Your task to perform on an android device: allow cookies in the chrome app Image 0: 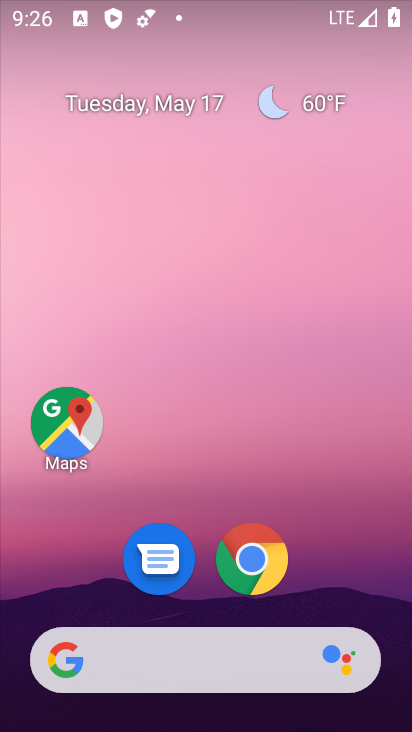
Step 0: click (247, 575)
Your task to perform on an android device: allow cookies in the chrome app Image 1: 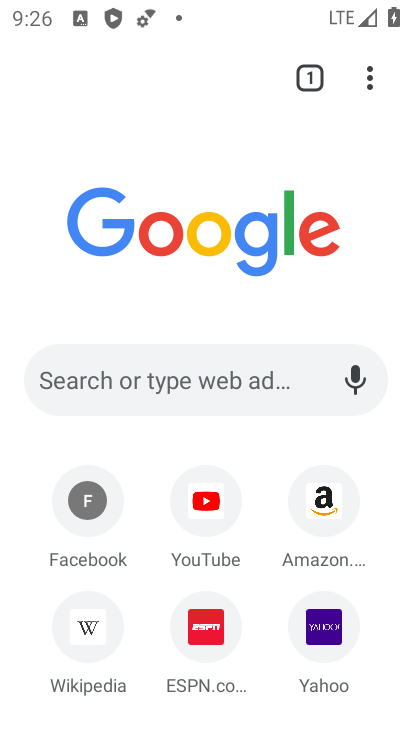
Step 1: drag from (365, 90) to (80, 655)
Your task to perform on an android device: allow cookies in the chrome app Image 2: 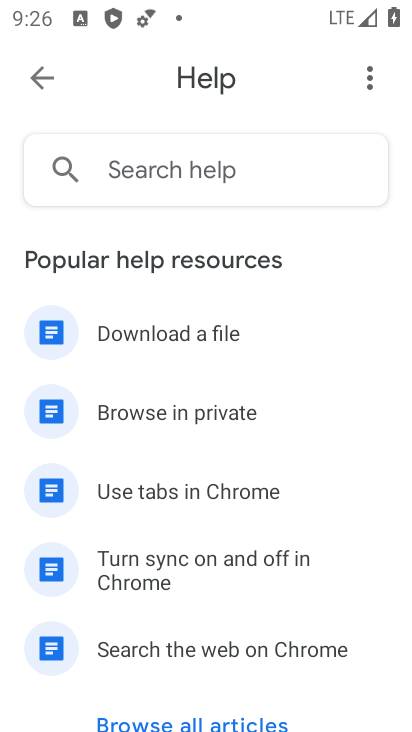
Step 2: press back button
Your task to perform on an android device: allow cookies in the chrome app Image 3: 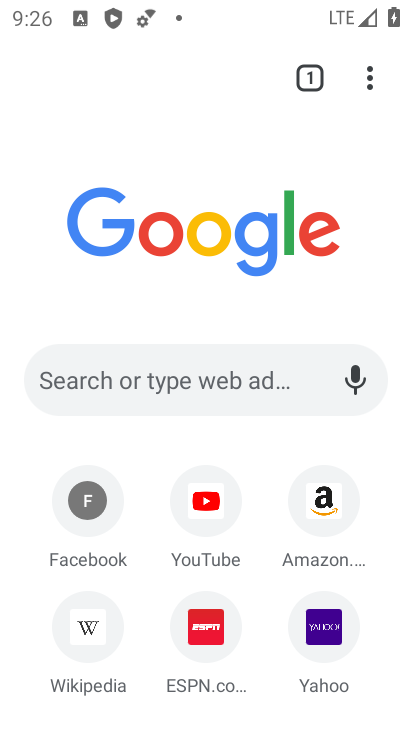
Step 3: drag from (365, 78) to (95, 636)
Your task to perform on an android device: allow cookies in the chrome app Image 4: 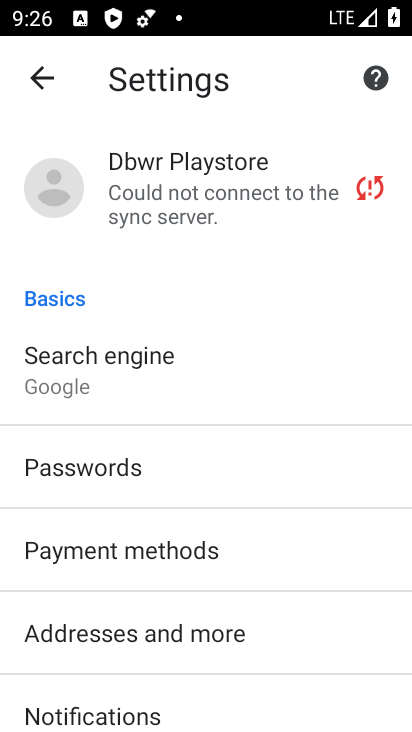
Step 4: drag from (213, 612) to (222, 473)
Your task to perform on an android device: allow cookies in the chrome app Image 5: 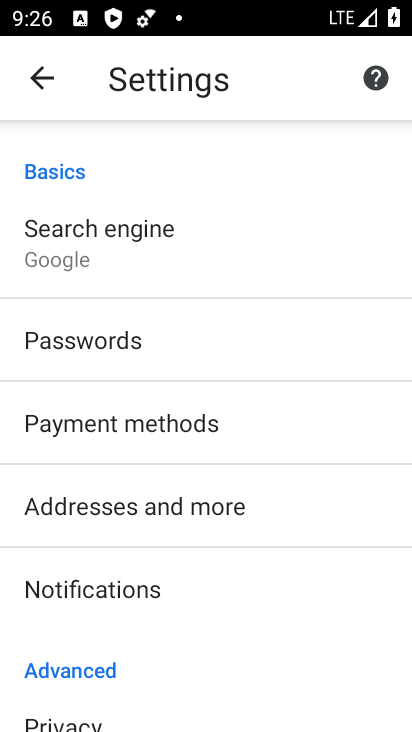
Step 5: drag from (119, 644) to (137, 459)
Your task to perform on an android device: allow cookies in the chrome app Image 6: 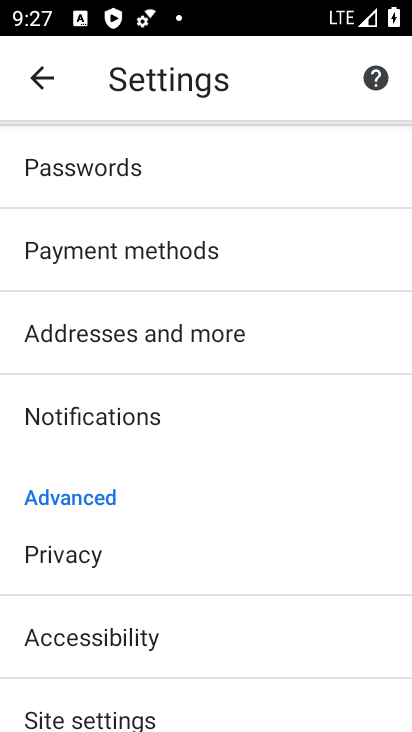
Step 6: drag from (174, 607) to (209, 413)
Your task to perform on an android device: allow cookies in the chrome app Image 7: 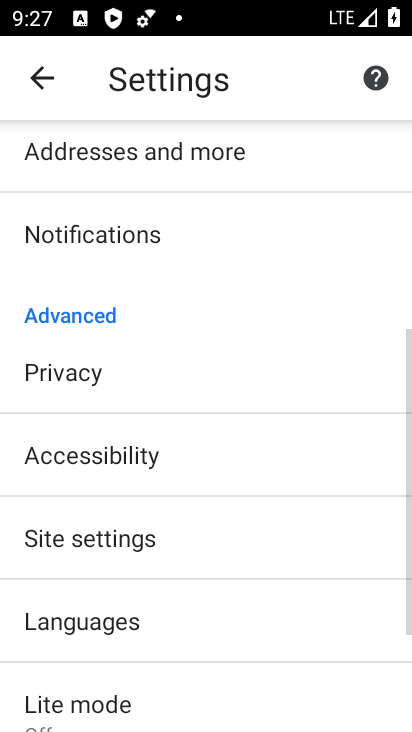
Step 7: click (154, 515)
Your task to perform on an android device: allow cookies in the chrome app Image 8: 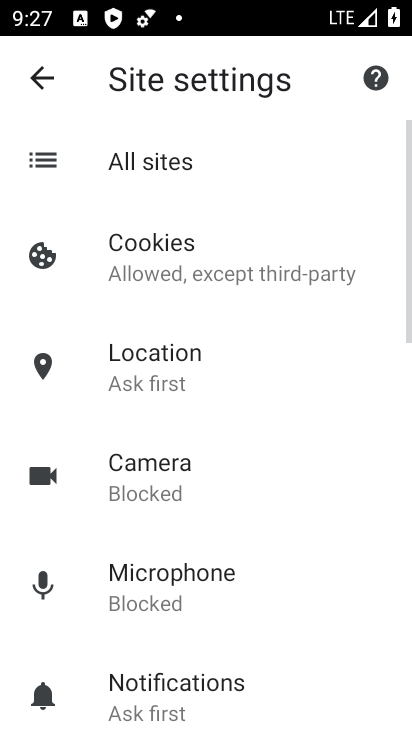
Step 8: click (154, 280)
Your task to perform on an android device: allow cookies in the chrome app Image 9: 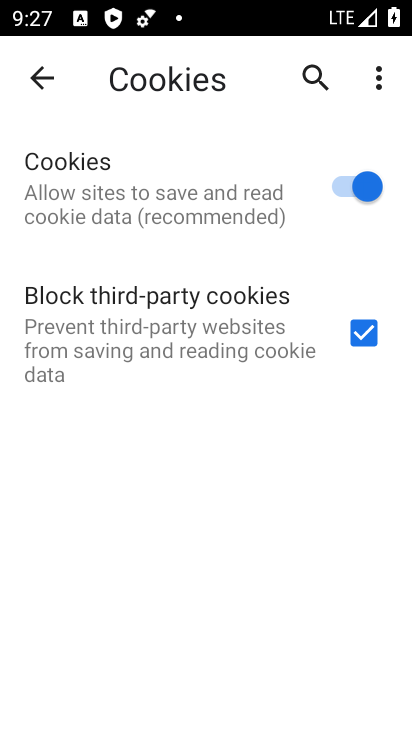
Step 9: task complete